Your task to perform on an android device: Open internet settings Image 0: 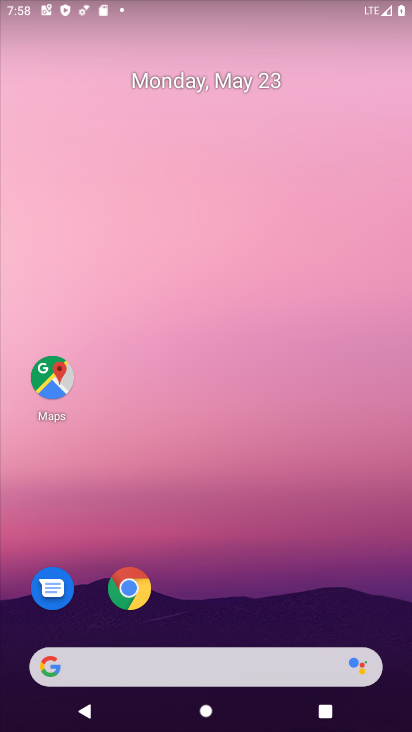
Step 0: drag from (395, 679) to (346, 67)
Your task to perform on an android device: Open internet settings Image 1: 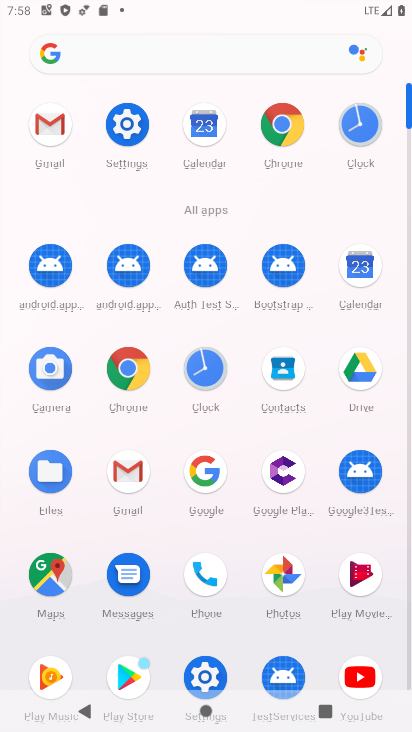
Step 1: click (115, 122)
Your task to perform on an android device: Open internet settings Image 2: 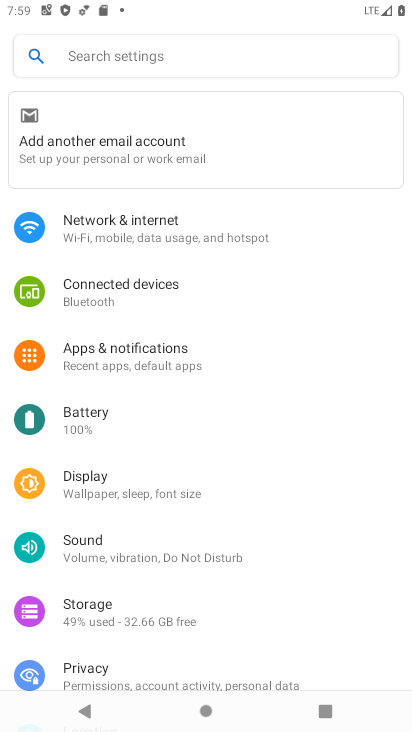
Step 2: click (109, 230)
Your task to perform on an android device: Open internet settings Image 3: 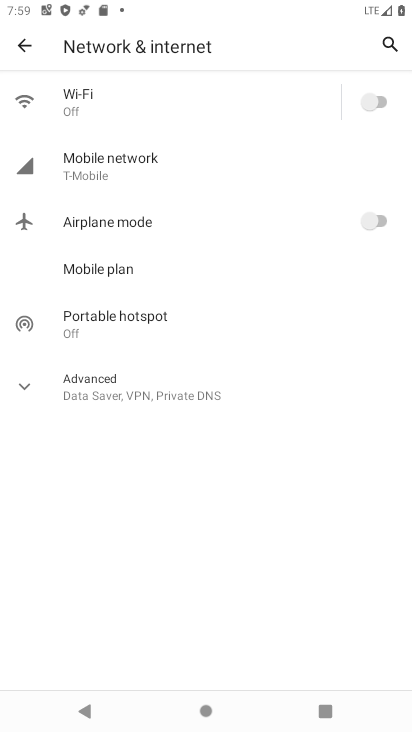
Step 3: click (88, 169)
Your task to perform on an android device: Open internet settings Image 4: 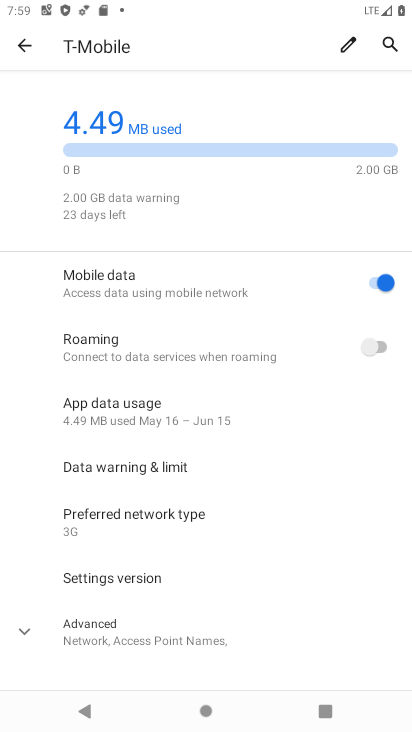
Step 4: task complete